Your task to perform on an android device: check storage Image 0: 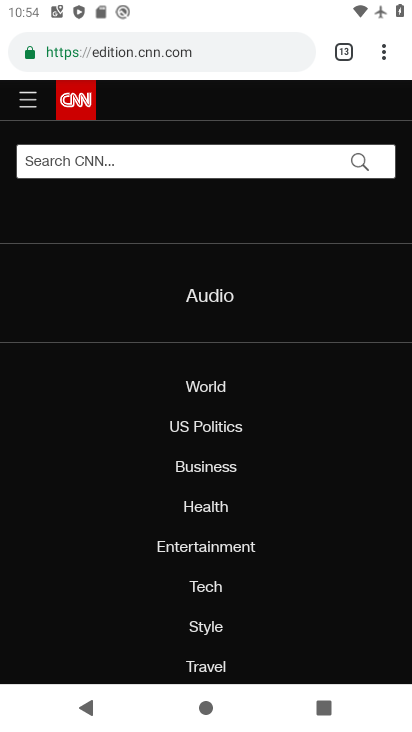
Step 0: press home button
Your task to perform on an android device: check storage Image 1: 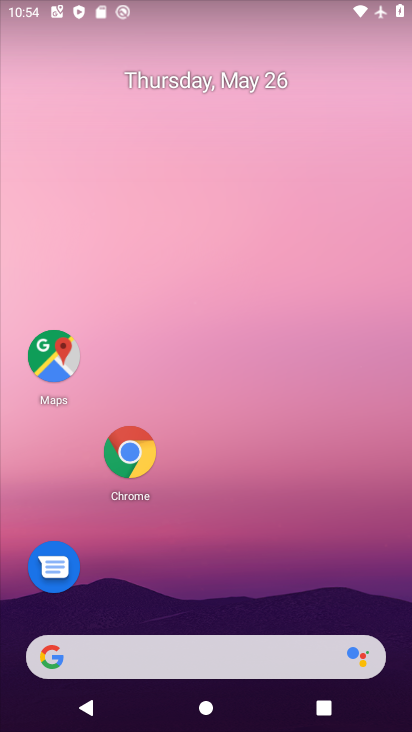
Step 1: drag from (172, 652) to (308, 125)
Your task to perform on an android device: check storage Image 2: 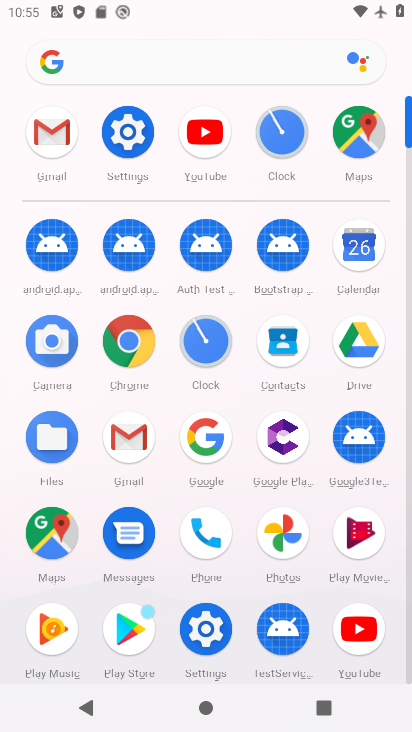
Step 2: click (130, 131)
Your task to perform on an android device: check storage Image 3: 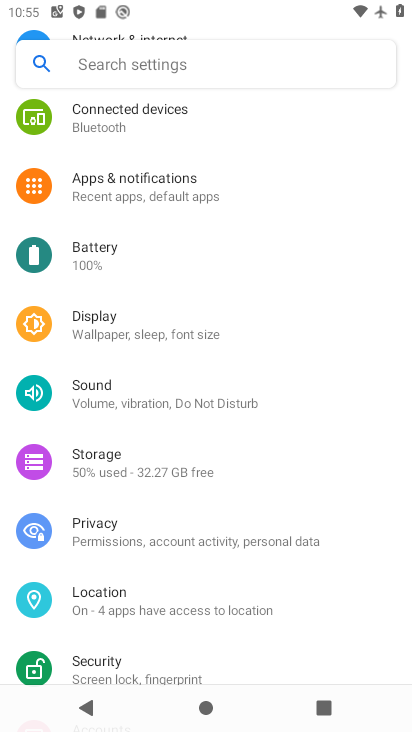
Step 3: click (122, 466)
Your task to perform on an android device: check storage Image 4: 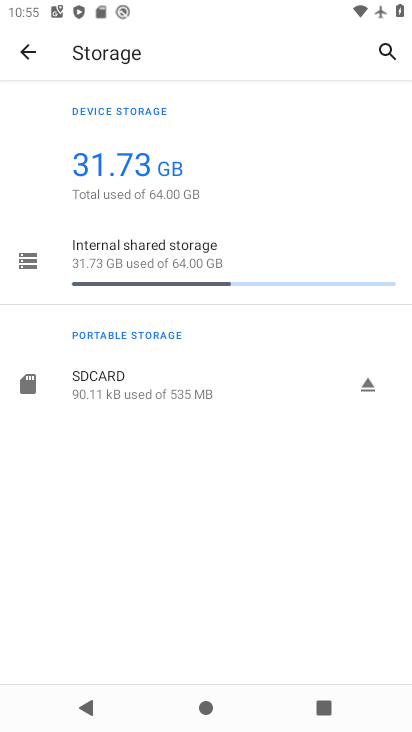
Step 4: task complete